Your task to perform on an android device: Go to sound settings Image 0: 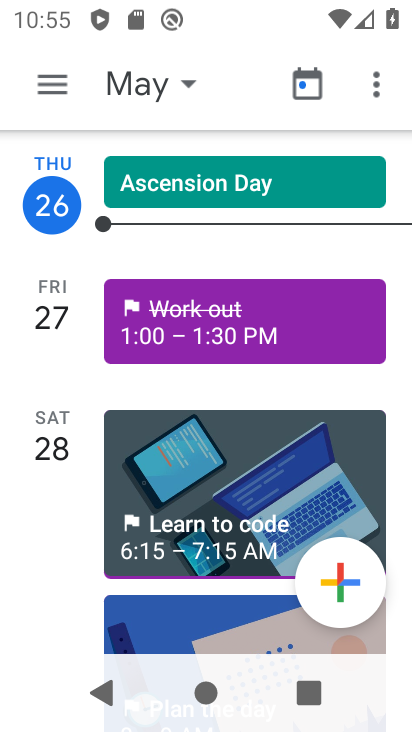
Step 0: press home button
Your task to perform on an android device: Go to sound settings Image 1: 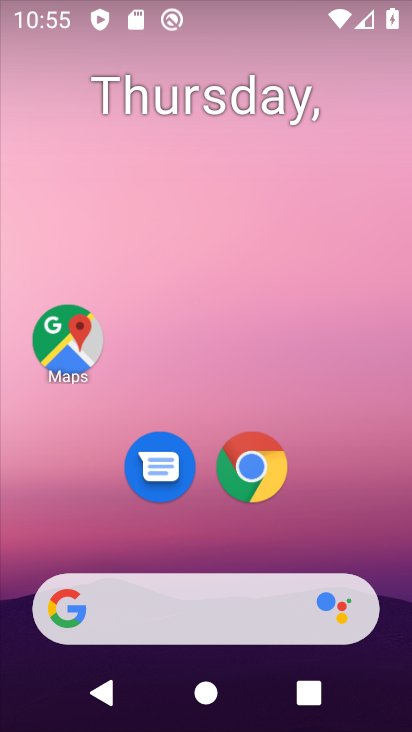
Step 1: drag from (232, 462) to (261, 170)
Your task to perform on an android device: Go to sound settings Image 2: 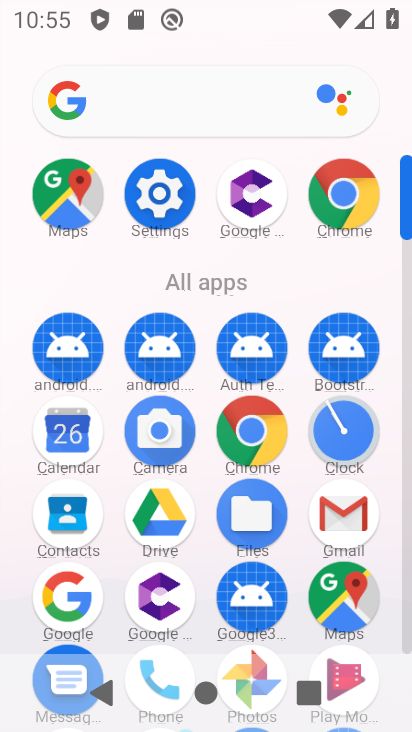
Step 2: drag from (214, 292) to (207, 66)
Your task to perform on an android device: Go to sound settings Image 3: 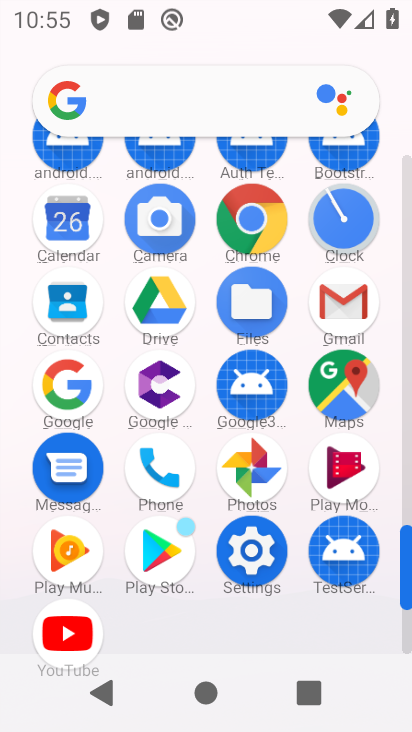
Step 3: click (266, 563)
Your task to perform on an android device: Go to sound settings Image 4: 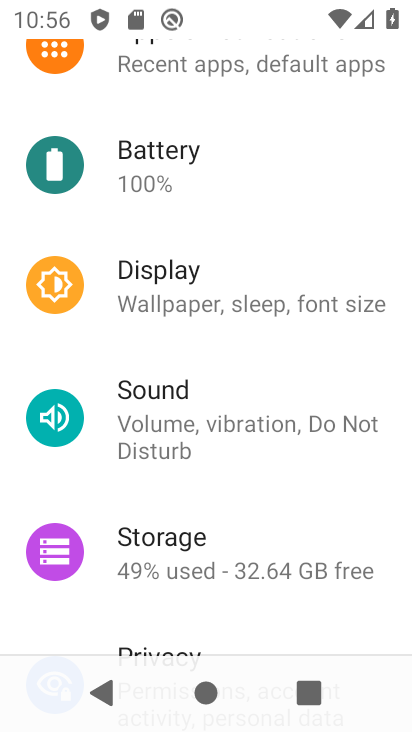
Step 4: drag from (233, 520) to (241, 210)
Your task to perform on an android device: Go to sound settings Image 5: 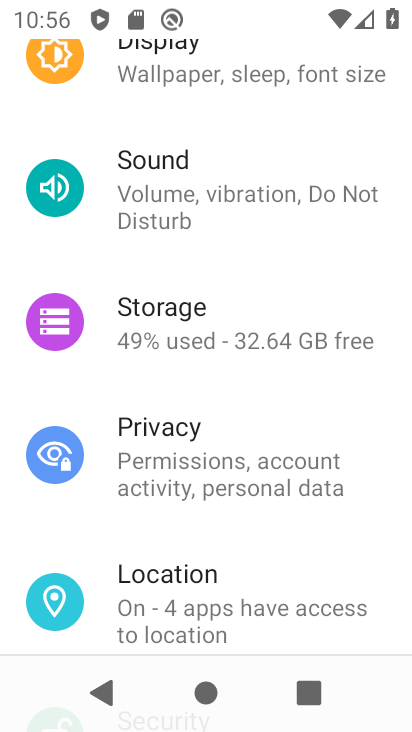
Step 5: click (236, 207)
Your task to perform on an android device: Go to sound settings Image 6: 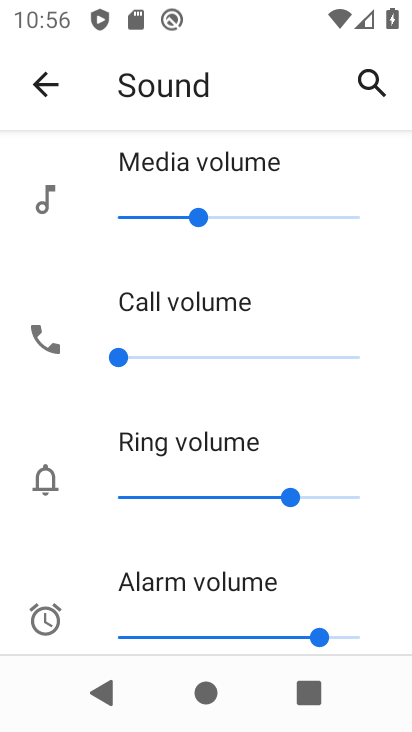
Step 6: task complete